Your task to perform on an android device: open device folders in google photos Image 0: 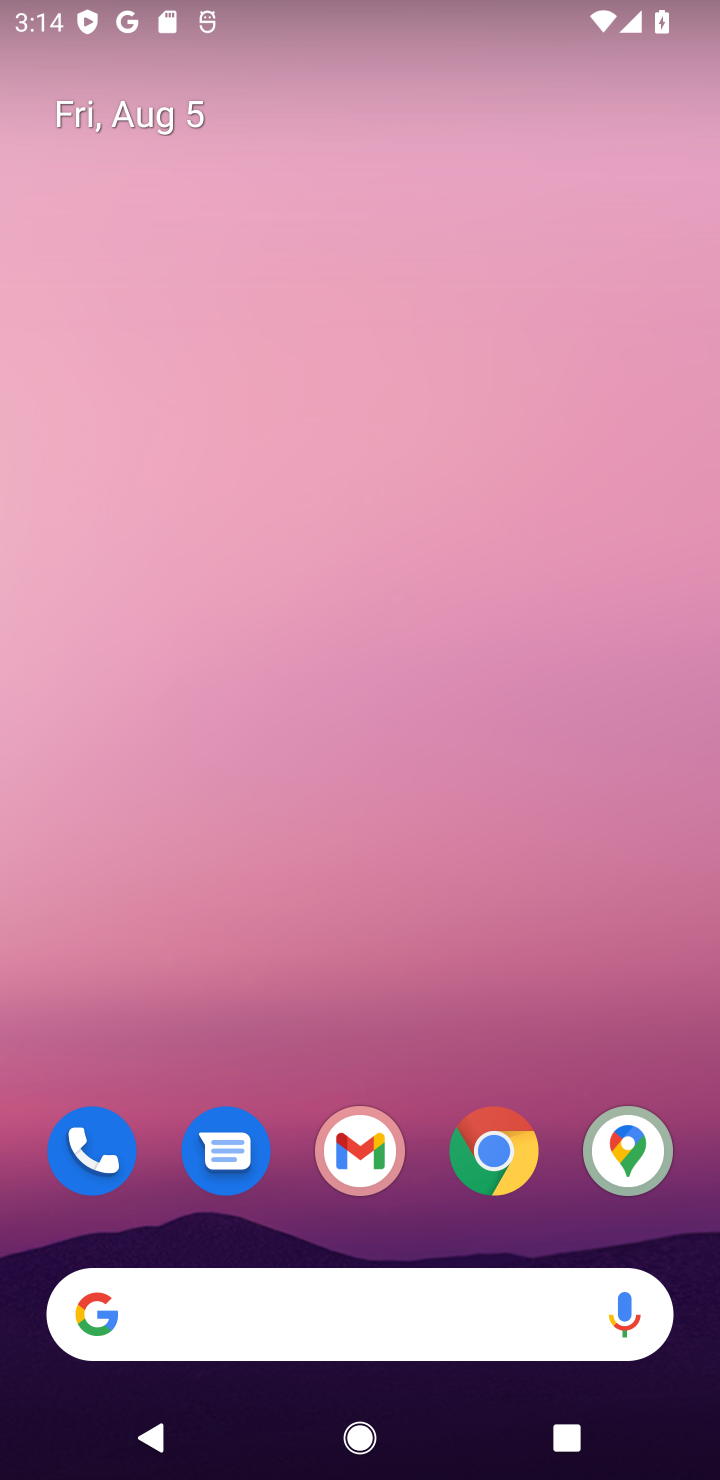
Step 0: drag from (366, 1077) to (207, 102)
Your task to perform on an android device: open device folders in google photos Image 1: 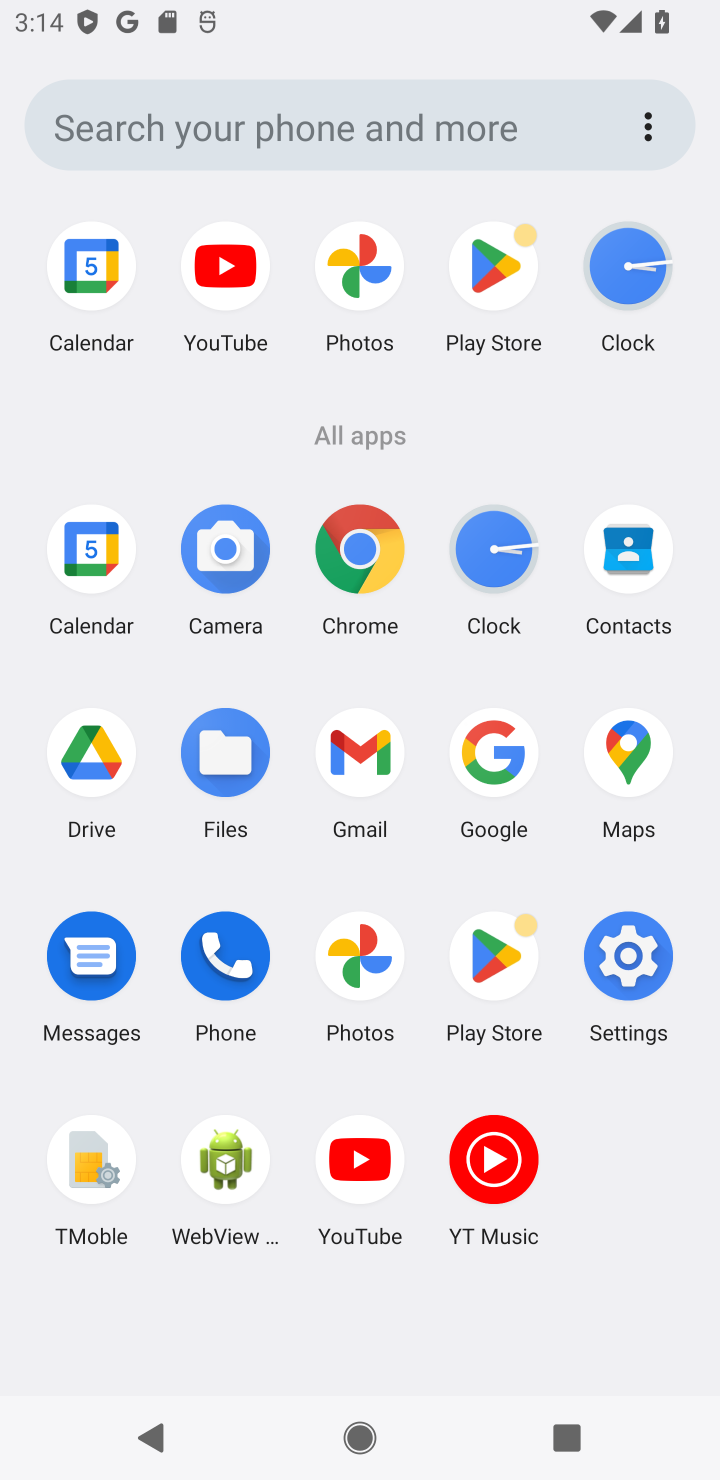
Step 1: click (373, 959)
Your task to perform on an android device: open device folders in google photos Image 2: 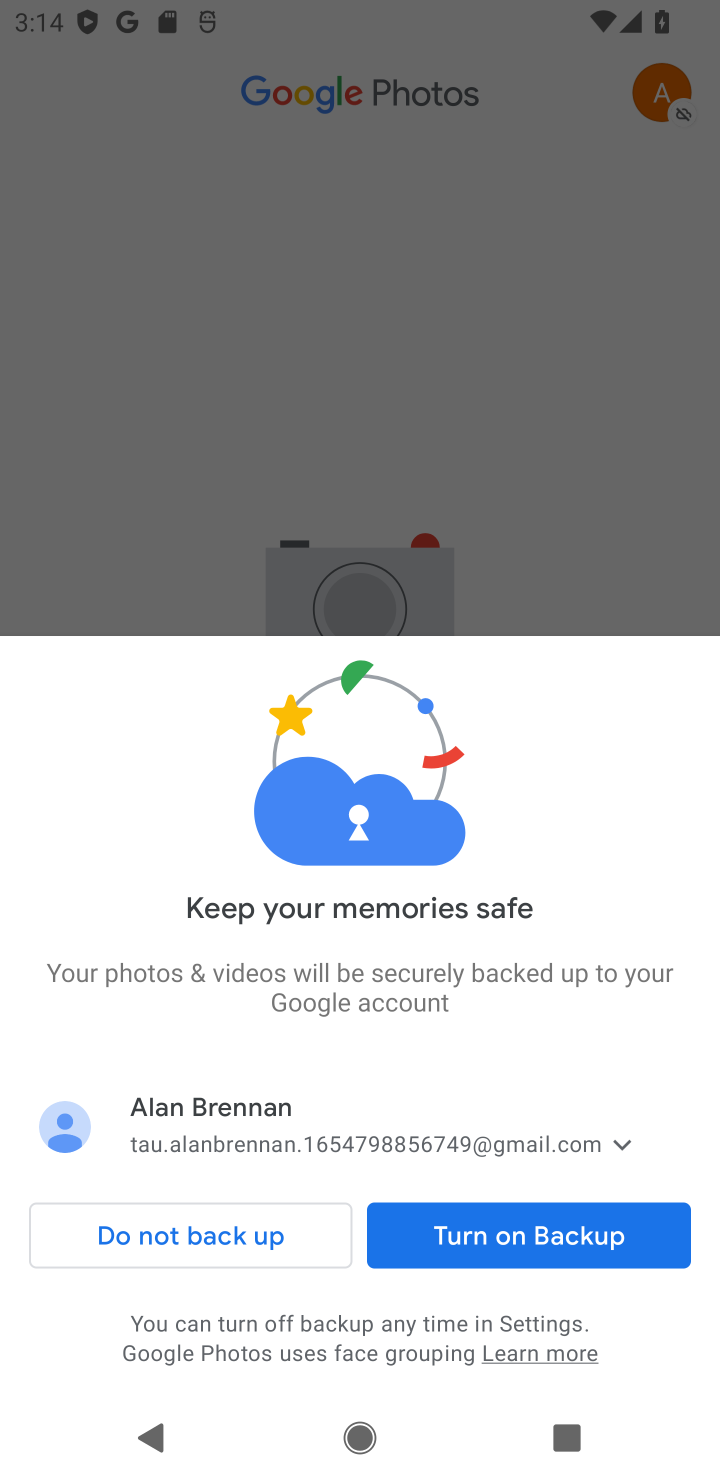
Step 2: click (462, 1249)
Your task to perform on an android device: open device folders in google photos Image 3: 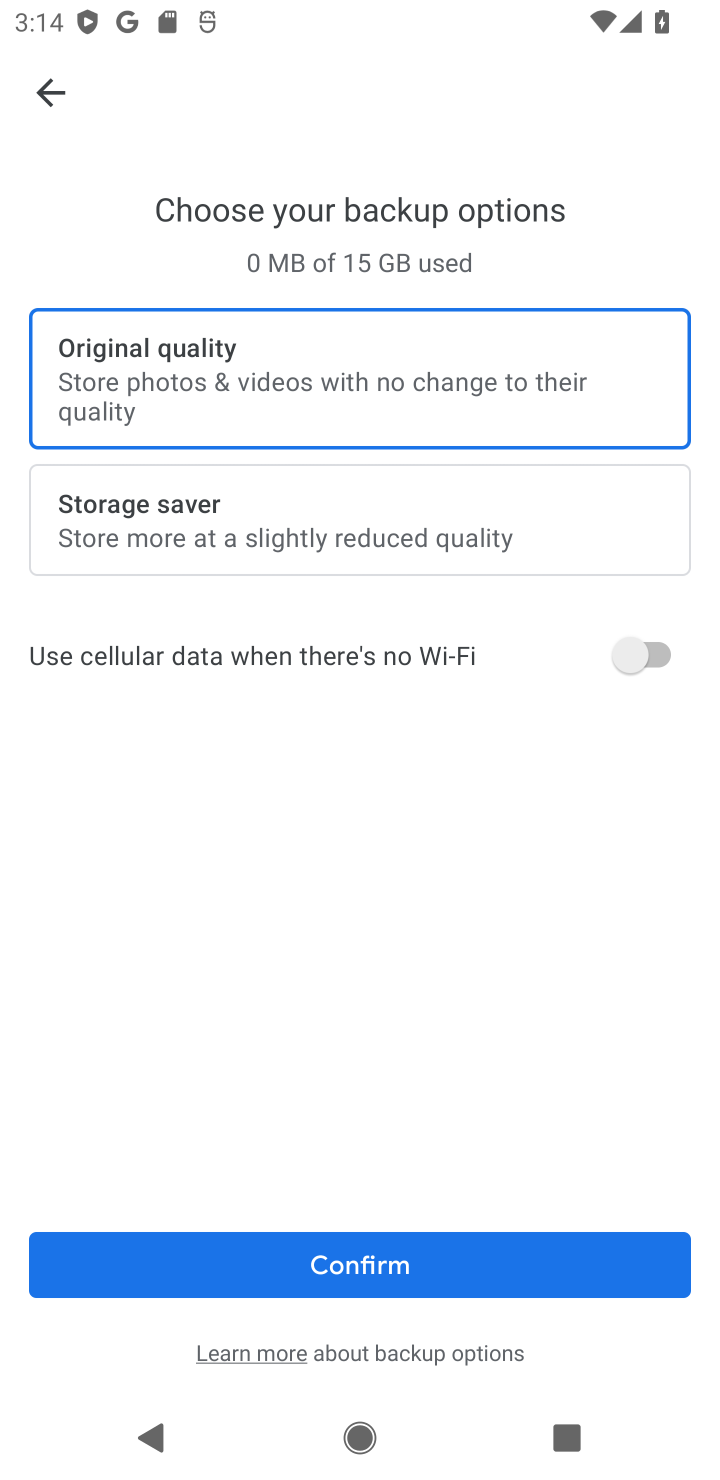
Step 3: click (497, 1245)
Your task to perform on an android device: open device folders in google photos Image 4: 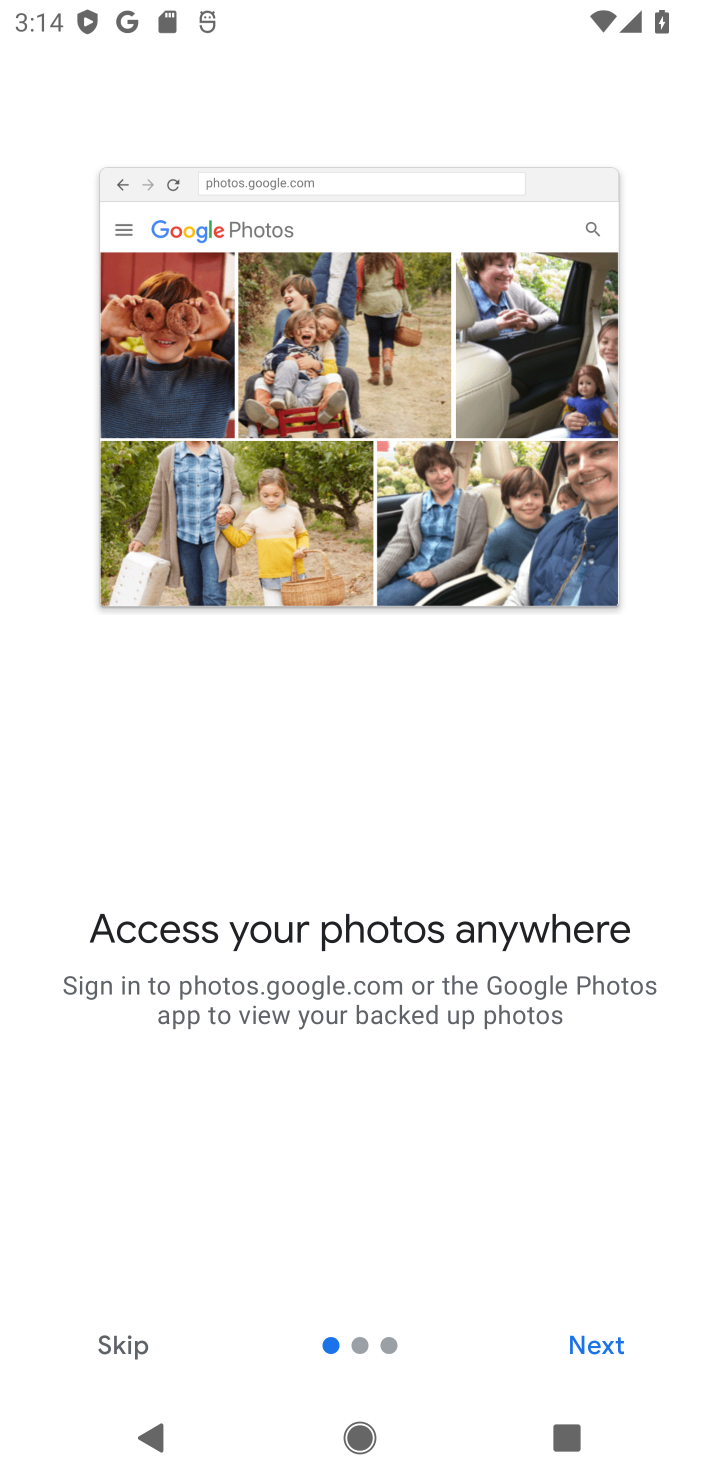
Step 4: click (121, 1363)
Your task to perform on an android device: open device folders in google photos Image 5: 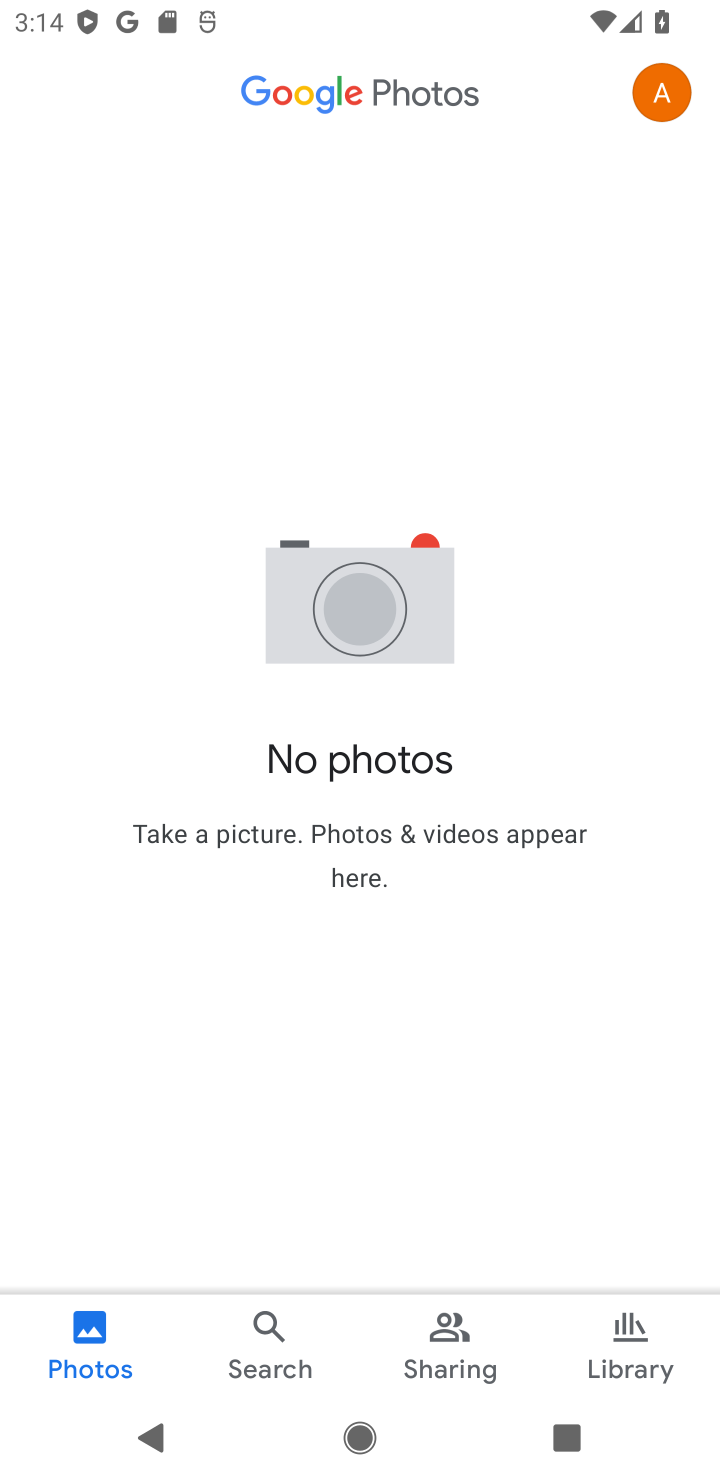
Step 5: click (291, 1331)
Your task to perform on an android device: open device folders in google photos Image 6: 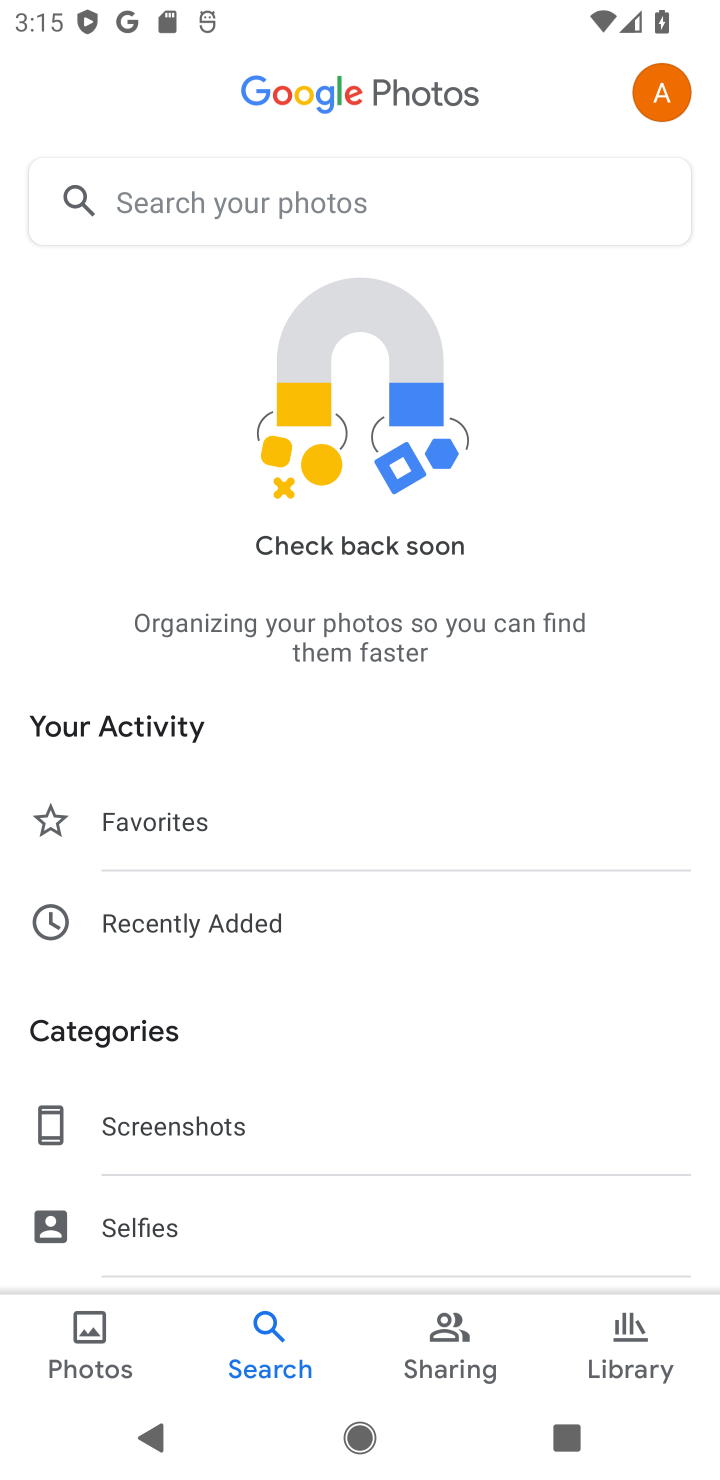
Step 6: task complete